Your task to perform on an android device: Go to Maps Image 0: 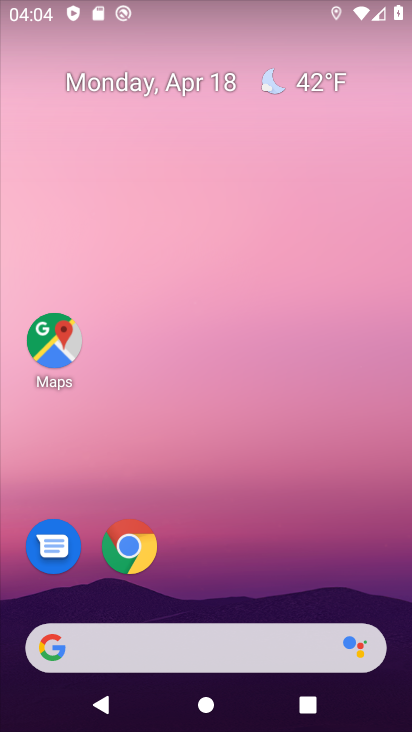
Step 0: drag from (253, 665) to (214, 266)
Your task to perform on an android device: Go to Maps Image 1: 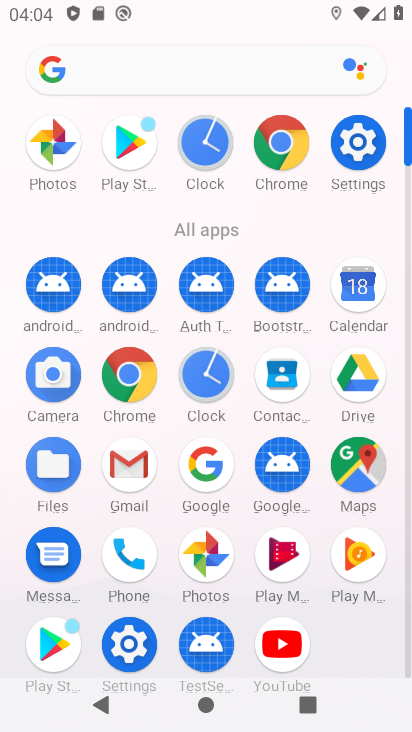
Step 1: click (364, 466)
Your task to perform on an android device: Go to Maps Image 2: 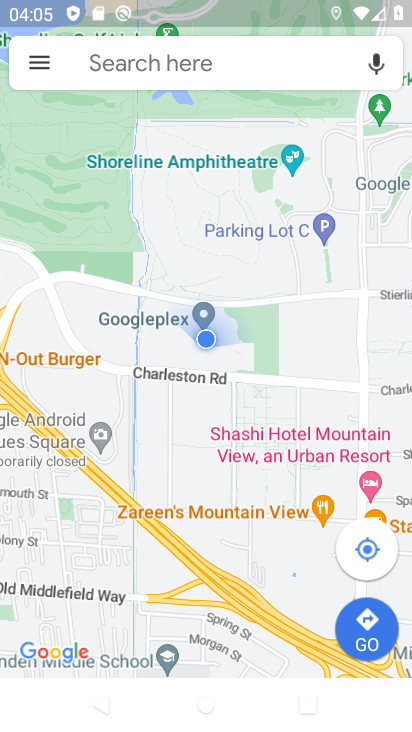
Step 2: task complete